Your task to perform on an android device: Open calendar and show me the first week of next month Image 0: 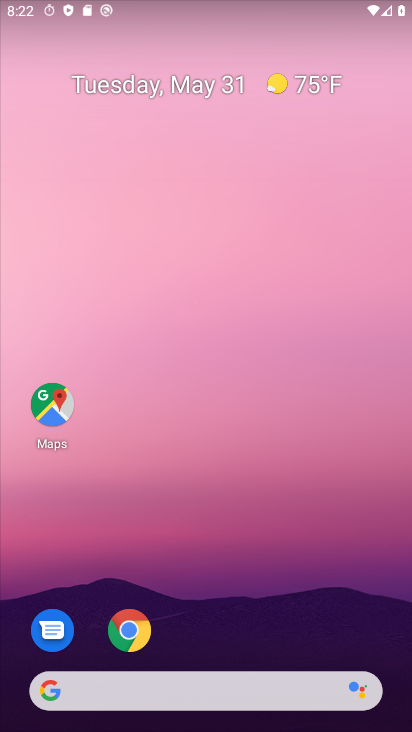
Step 0: drag from (202, 646) to (218, 223)
Your task to perform on an android device: Open calendar and show me the first week of next month Image 1: 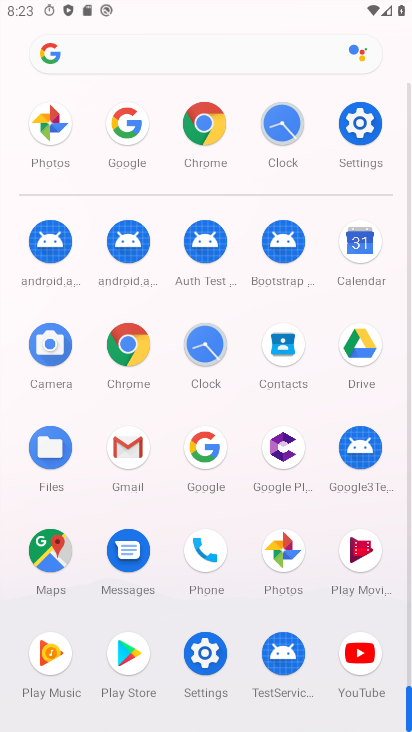
Step 1: click (359, 249)
Your task to perform on an android device: Open calendar and show me the first week of next month Image 2: 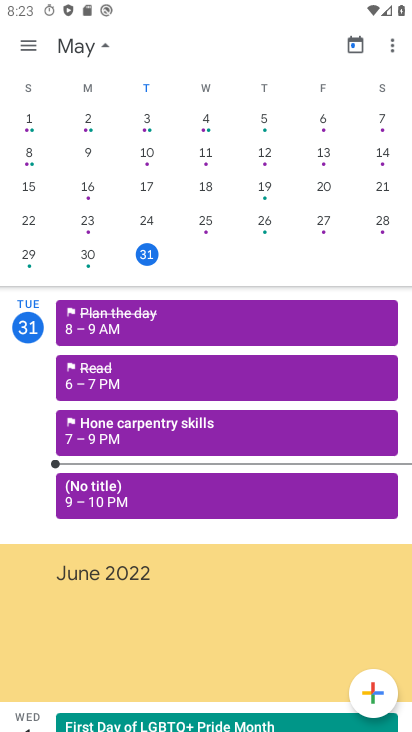
Step 2: drag from (320, 193) to (0, 263)
Your task to perform on an android device: Open calendar and show me the first week of next month Image 3: 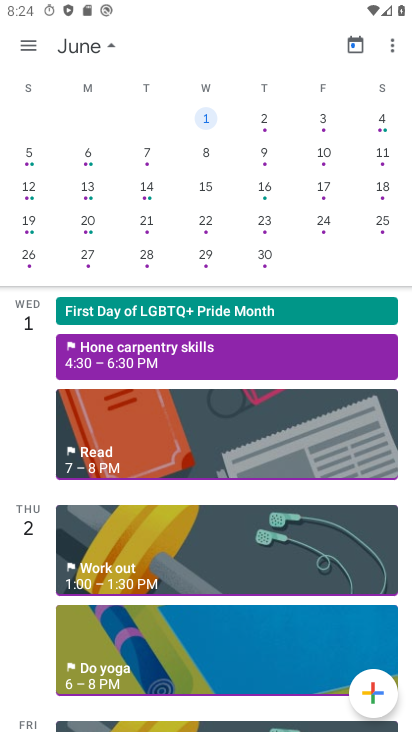
Step 3: drag from (309, 202) to (255, 217)
Your task to perform on an android device: Open calendar and show me the first week of next month Image 4: 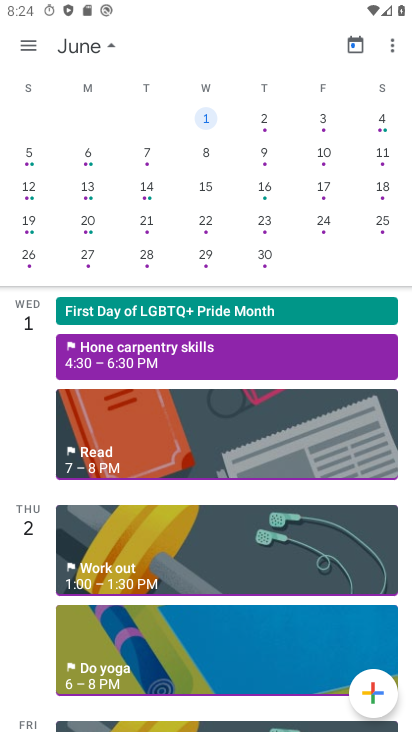
Step 4: click (209, 118)
Your task to perform on an android device: Open calendar and show me the first week of next month Image 5: 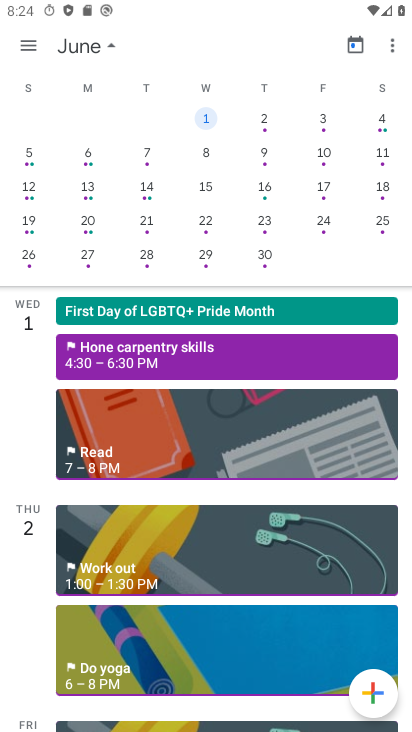
Step 5: task complete